Your task to perform on an android device: turn on sleep mode Image 0: 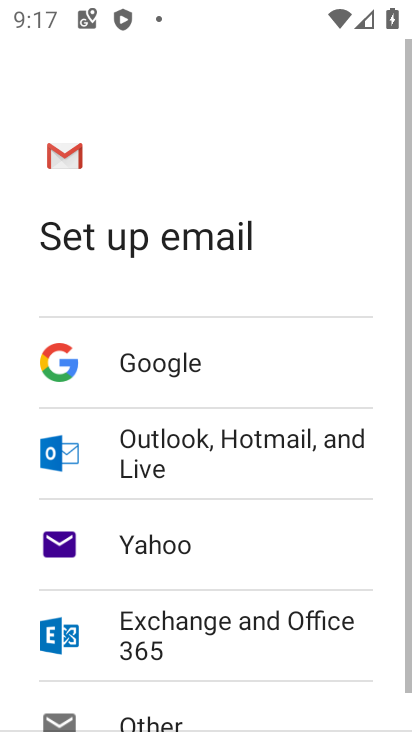
Step 0: press home button
Your task to perform on an android device: turn on sleep mode Image 1: 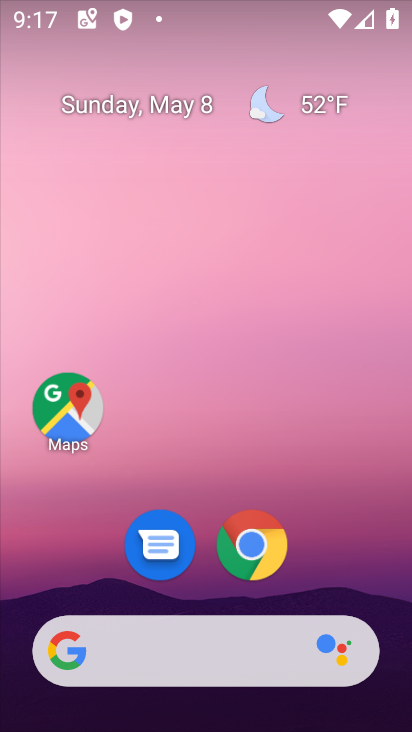
Step 1: drag from (201, 602) to (211, 19)
Your task to perform on an android device: turn on sleep mode Image 2: 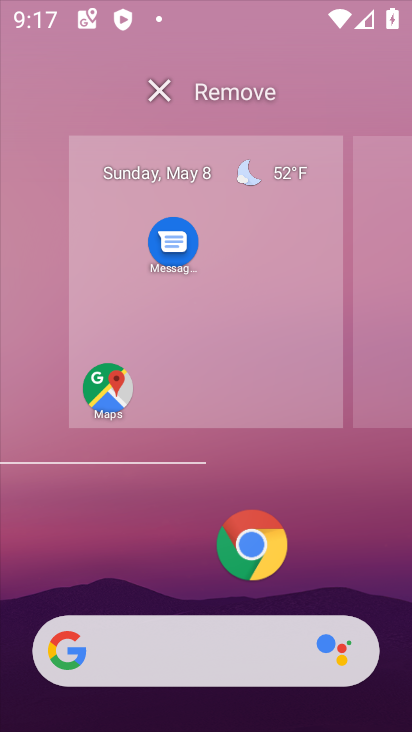
Step 2: click (207, 557)
Your task to perform on an android device: turn on sleep mode Image 3: 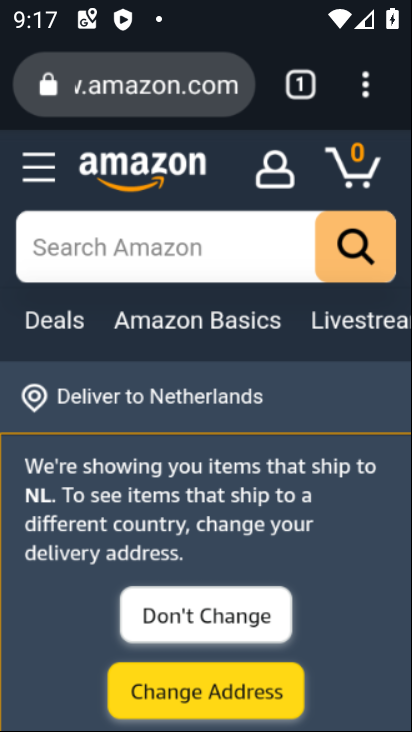
Step 3: drag from (215, 611) to (201, 430)
Your task to perform on an android device: turn on sleep mode Image 4: 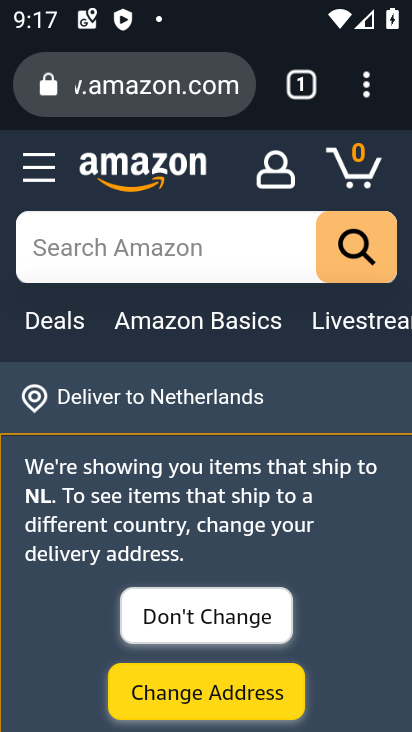
Step 4: press home button
Your task to perform on an android device: turn on sleep mode Image 5: 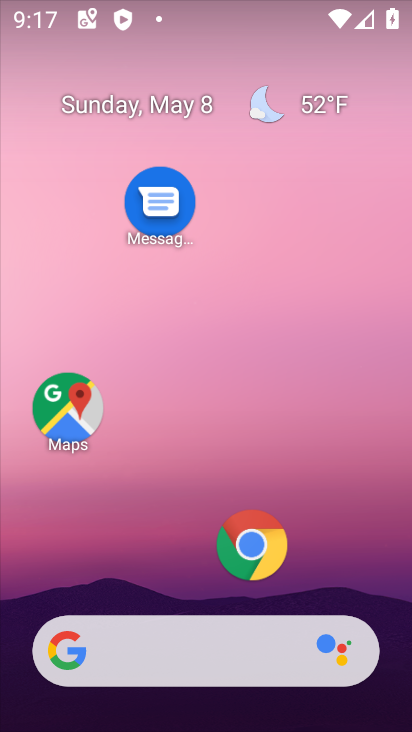
Step 5: drag from (164, 597) to (275, 0)
Your task to perform on an android device: turn on sleep mode Image 6: 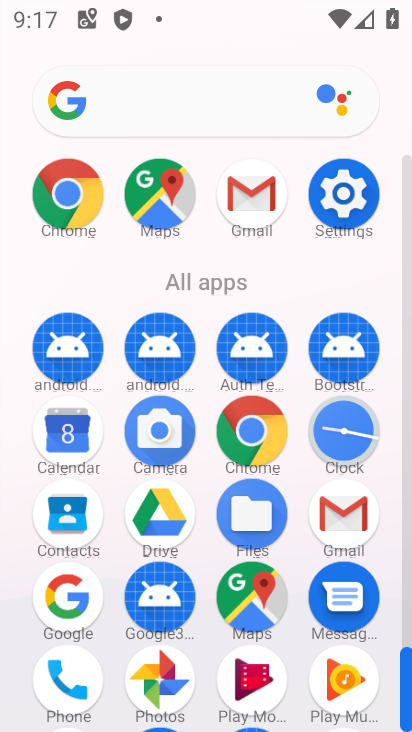
Step 6: click (336, 172)
Your task to perform on an android device: turn on sleep mode Image 7: 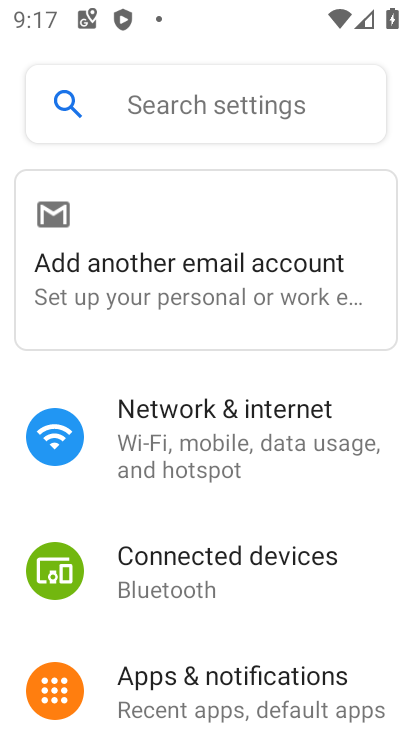
Step 7: drag from (245, 534) to (183, 57)
Your task to perform on an android device: turn on sleep mode Image 8: 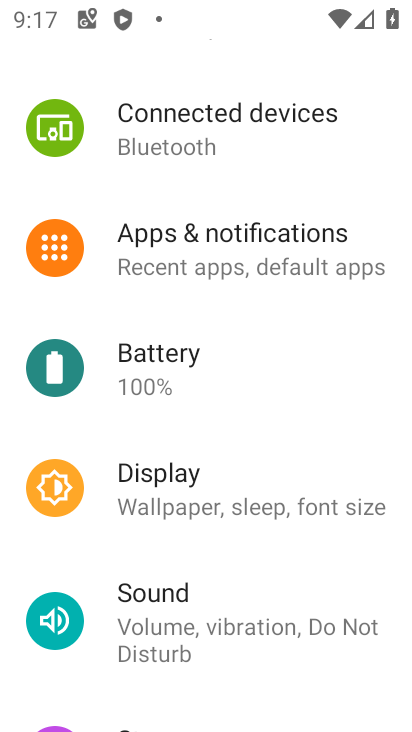
Step 8: drag from (279, 564) to (250, 182)
Your task to perform on an android device: turn on sleep mode Image 9: 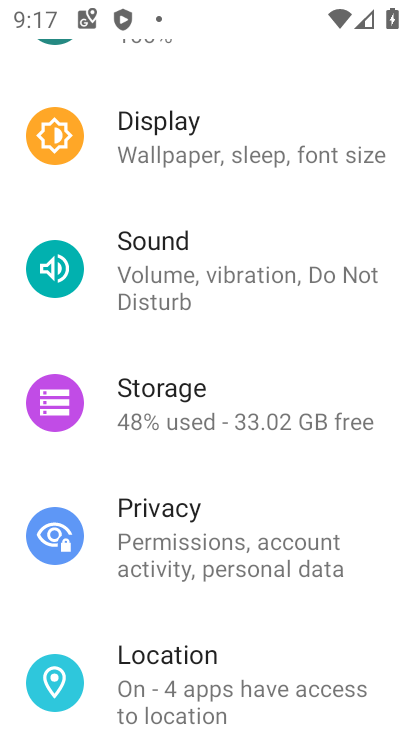
Step 9: click (166, 154)
Your task to perform on an android device: turn on sleep mode Image 10: 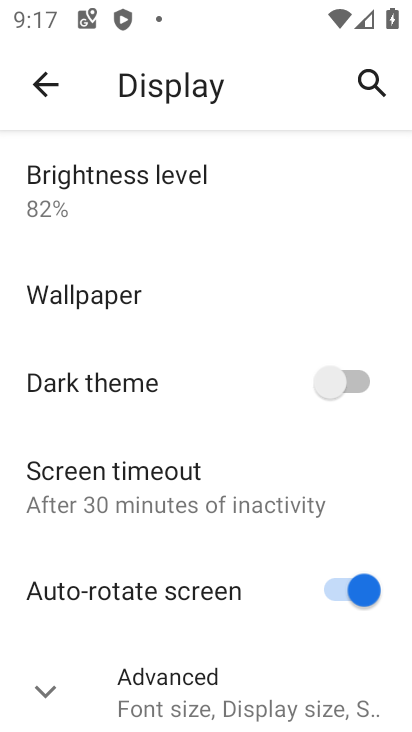
Step 10: click (184, 697)
Your task to perform on an android device: turn on sleep mode Image 11: 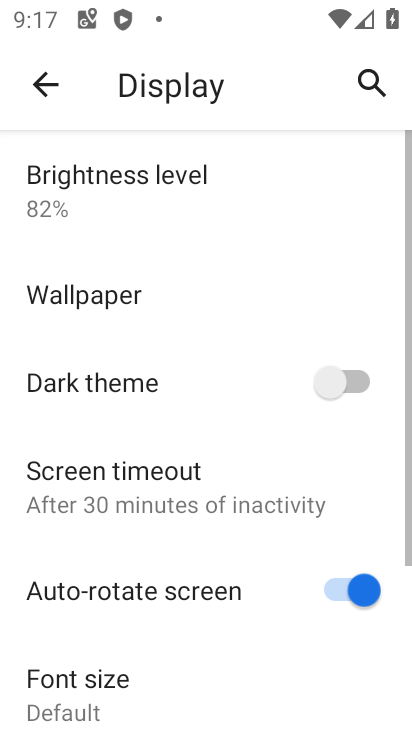
Step 11: task complete